Your task to perform on an android device: all mails in gmail Image 0: 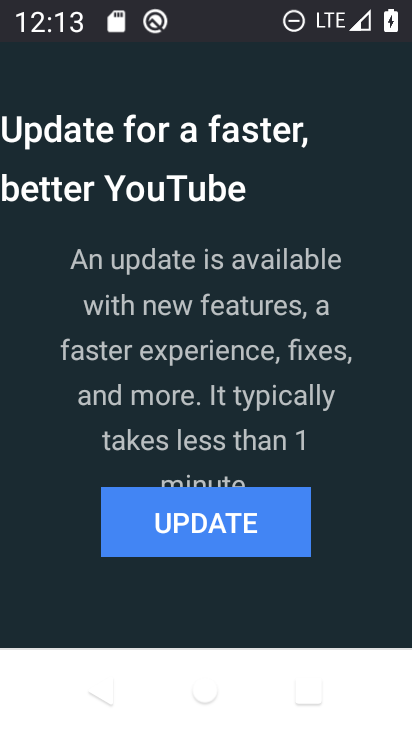
Step 0: press home button
Your task to perform on an android device: all mails in gmail Image 1: 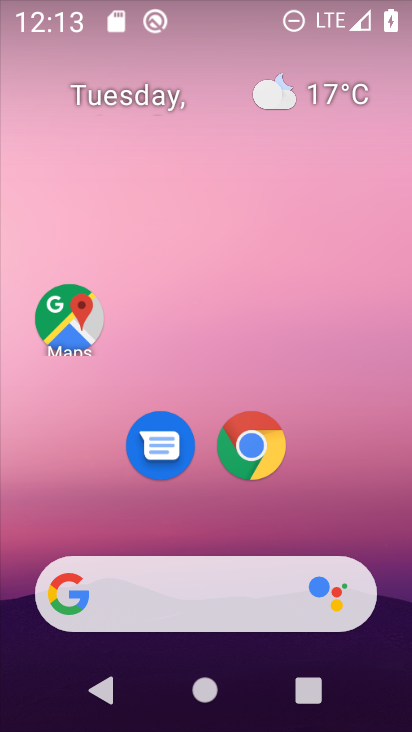
Step 1: drag from (395, 596) to (322, 153)
Your task to perform on an android device: all mails in gmail Image 2: 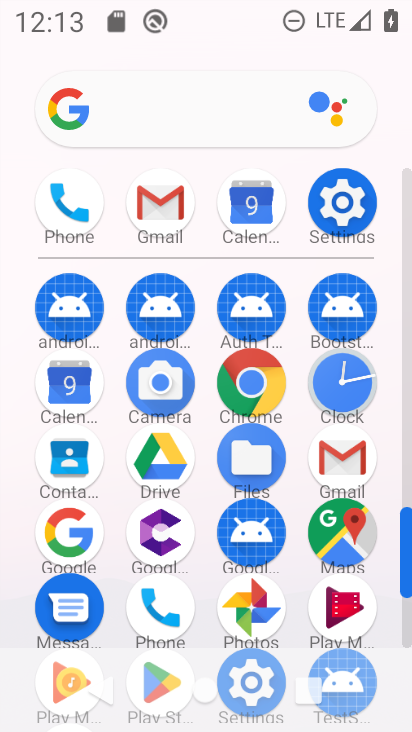
Step 2: click (343, 453)
Your task to perform on an android device: all mails in gmail Image 3: 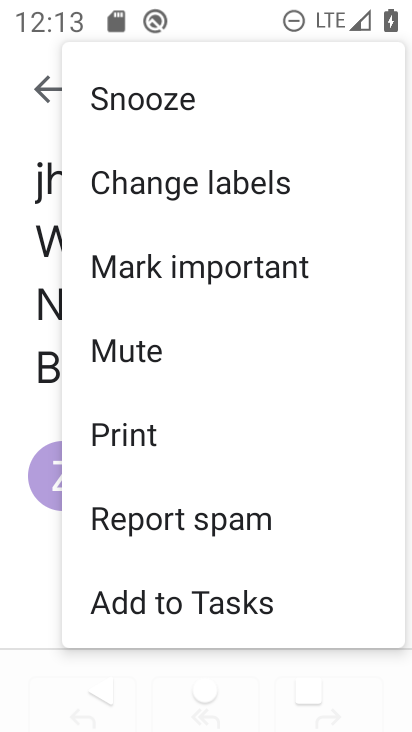
Step 3: click (17, 130)
Your task to perform on an android device: all mails in gmail Image 4: 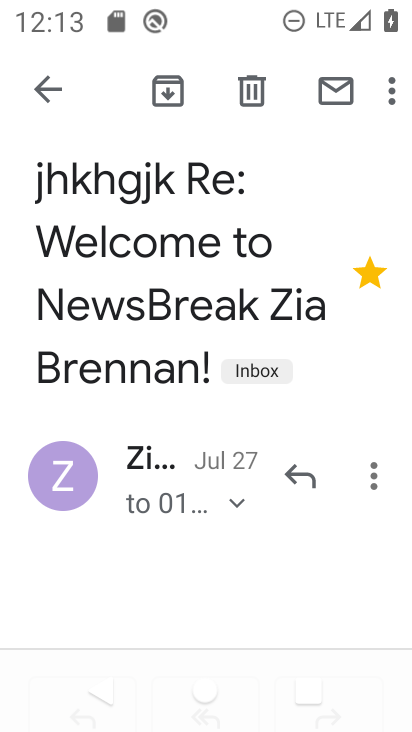
Step 4: task complete